Your task to perform on an android device: change your default location settings in chrome Image 0: 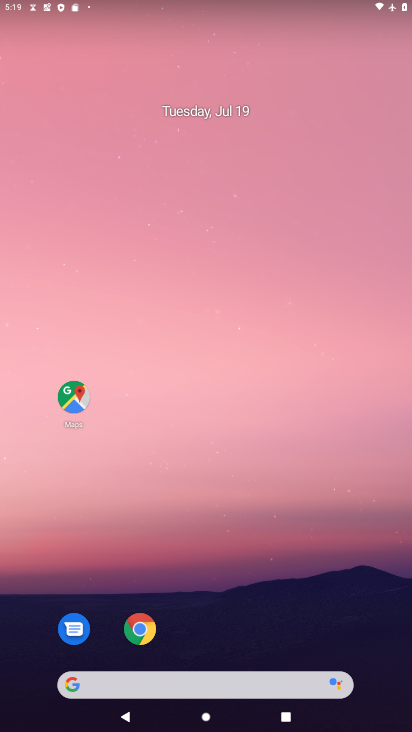
Step 0: press home button
Your task to perform on an android device: change your default location settings in chrome Image 1: 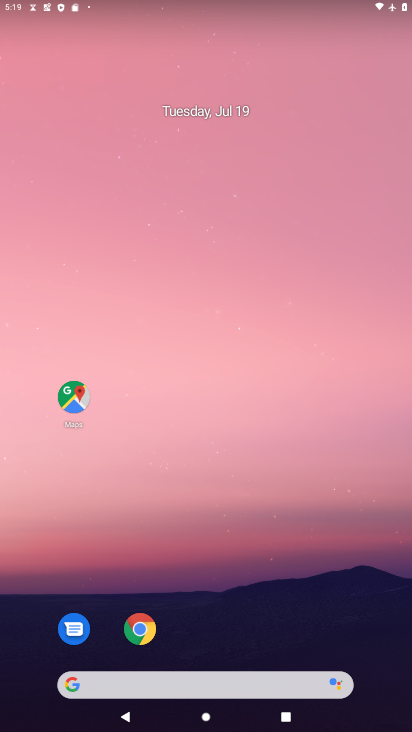
Step 1: drag from (212, 637) to (319, 5)
Your task to perform on an android device: change your default location settings in chrome Image 2: 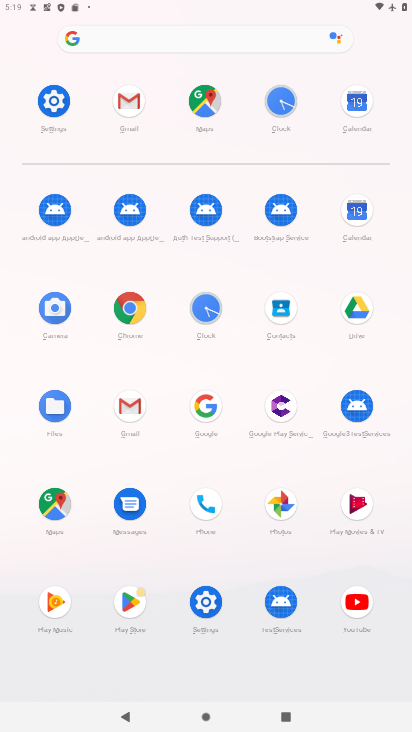
Step 2: click (134, 306)
Your task to perform on an android device: change your default location settings in chrome Image 3: 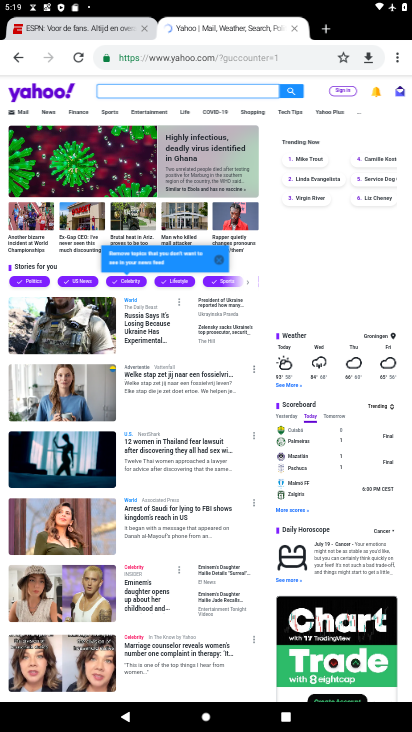
Step 3: drag from (402, 59) to (290, 420)
Your task to perform on an android device: change your default location settings in chrome Image 4: 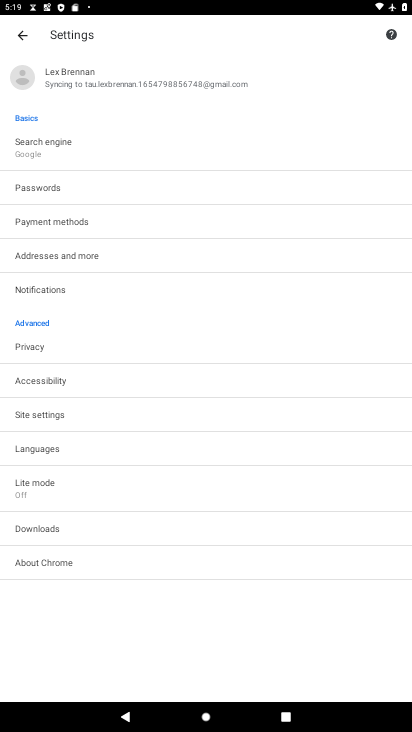
Step 4: click (51, 416)
Your task to perform on an android device: change your default location settings in chrome Image 5: 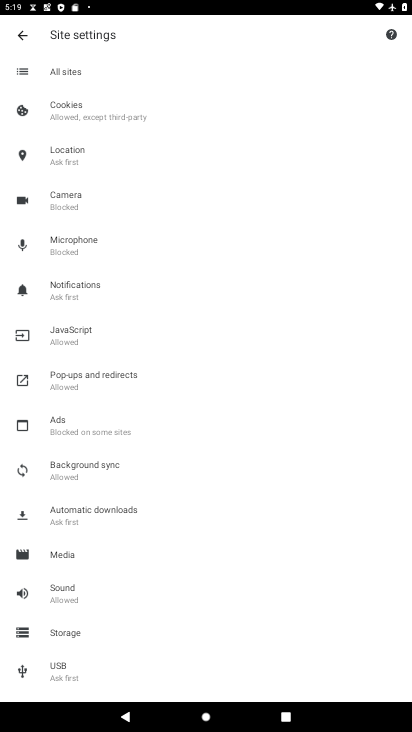
Step 5: click (57, 155)
Your task to perform on an android device: change your default location settings in chrome Image 6: 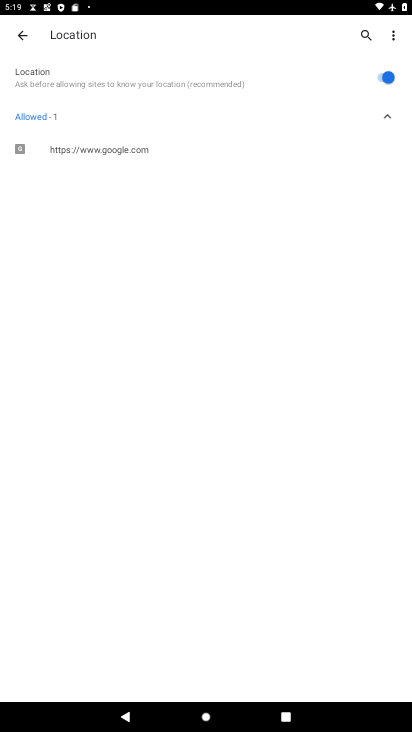
Step 6: click (386, 80)
Your task to perform on an android device: change your default location settings in chrome Image 7: 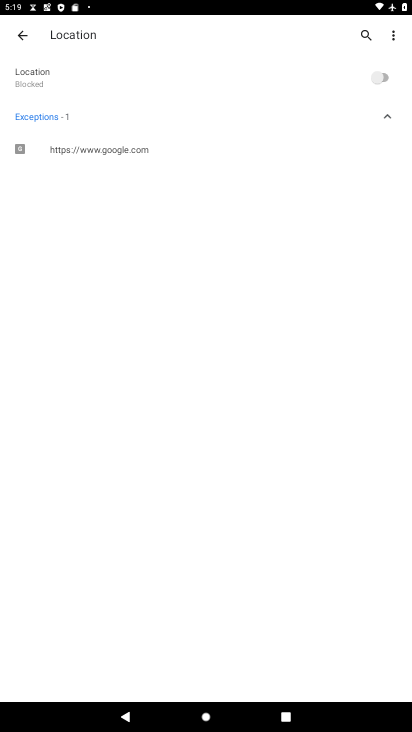
Step 7: task complete